Your task to perform on an android device: change the clock style Image 0: 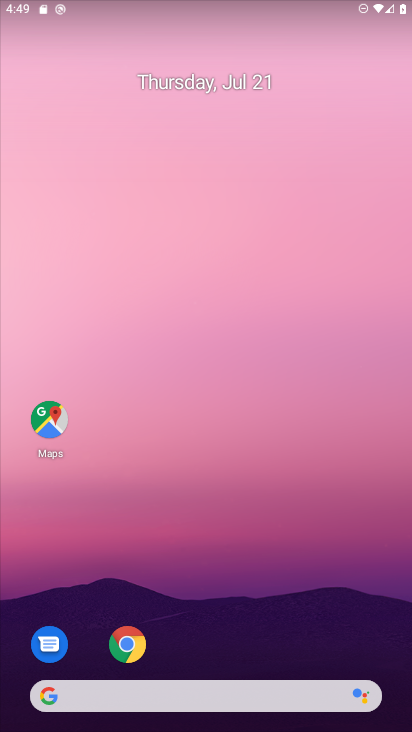
Step 0: drag from (185, 439) to (239, 14)
Your task to perform on an android device: change the clock style Image 1: 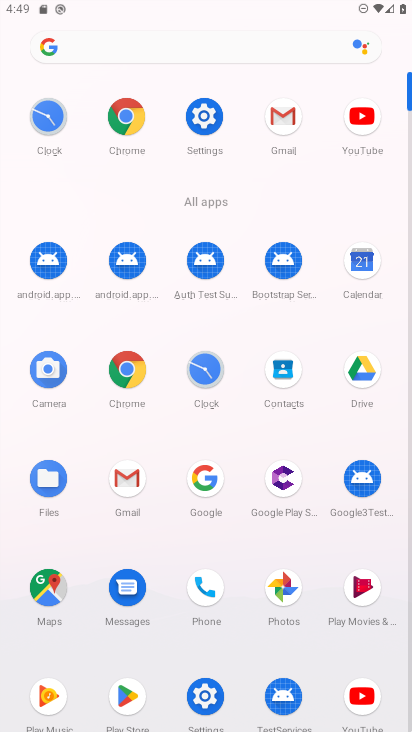
Step 1: click (209, 371)
Your task to perform on an android device: change the clock style Image 2: 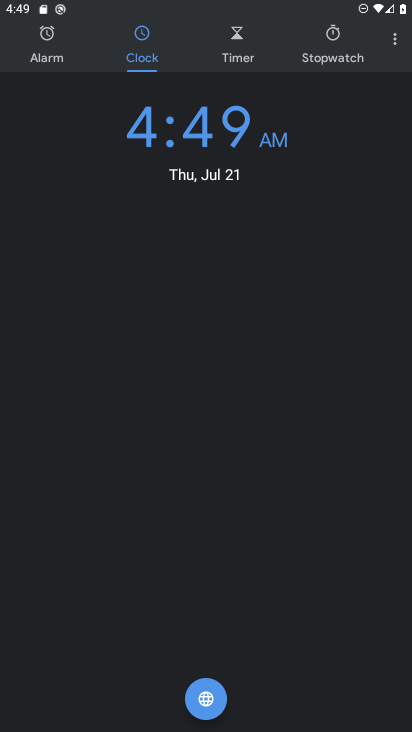
Step 2: click (398, 39)
Your task to perform on an android device: change the clock style Image 3: 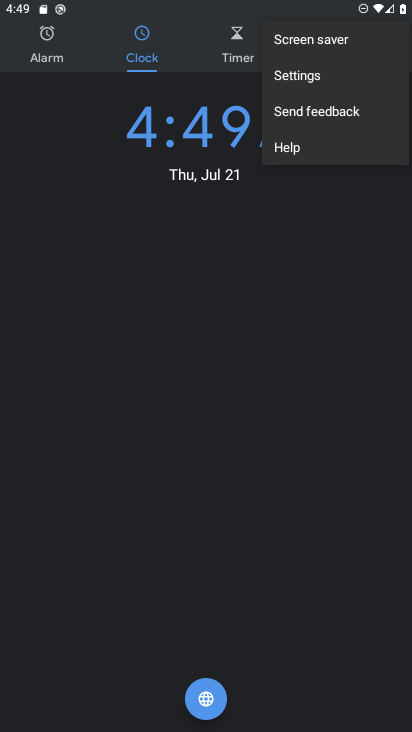
Step 3: click (322, 74)
Your task to perform on an android device: change the clock style Image 4: 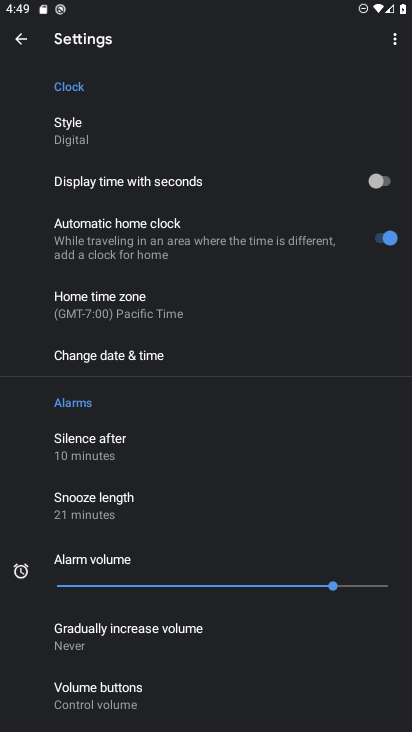
Step 4: click (100, 139)
Your task to perform on an android device: change the clock style Image 5: 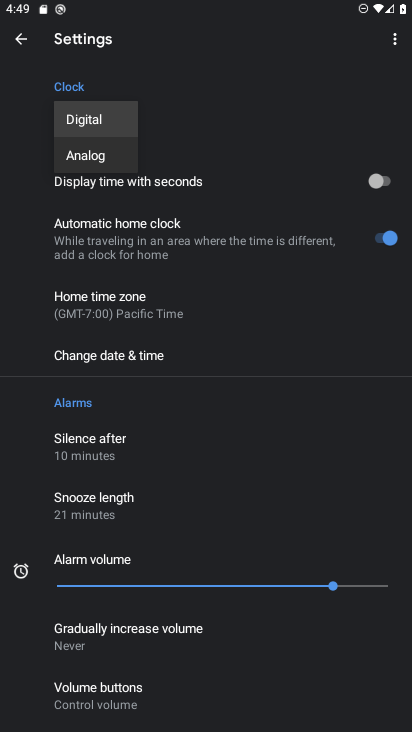
Step 5: click (79, 160)
Your task to perform on an android device: change the clock style Image 6: 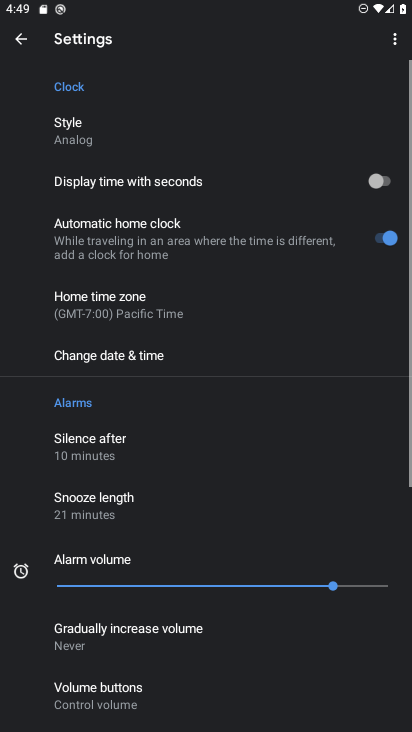
Step 6: task complete